Your task to perform on an android device: snooze an email in the gmail app Image 0: 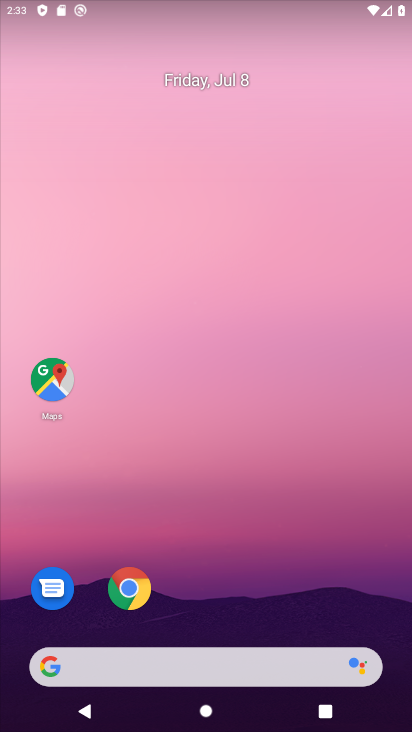
Step 0: drag from (189, 445) to (130, 37)
Your task to perform on an android device: snooze an email in the gmail app Image 1: 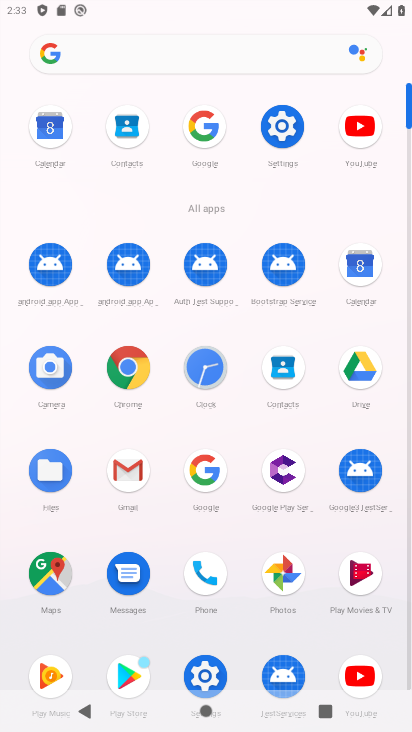
Step 1: click (131, 485)
Your task to perform on an android device: snooze an email in the gmail app Image 2: 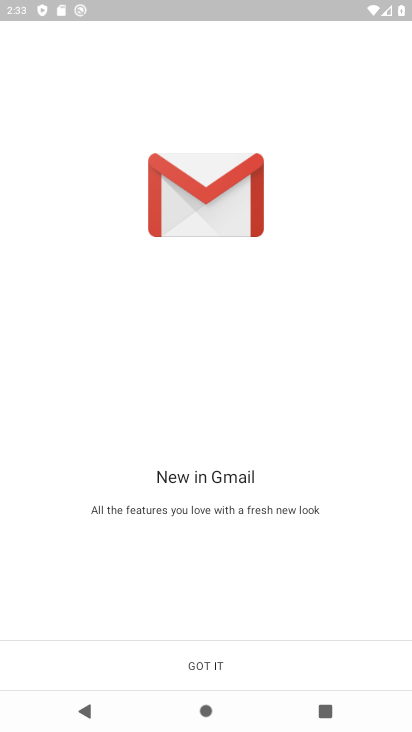
Step 2: click (207, 664)
Your task to perform on an android device: snooze an email in the gmail app Image 3: 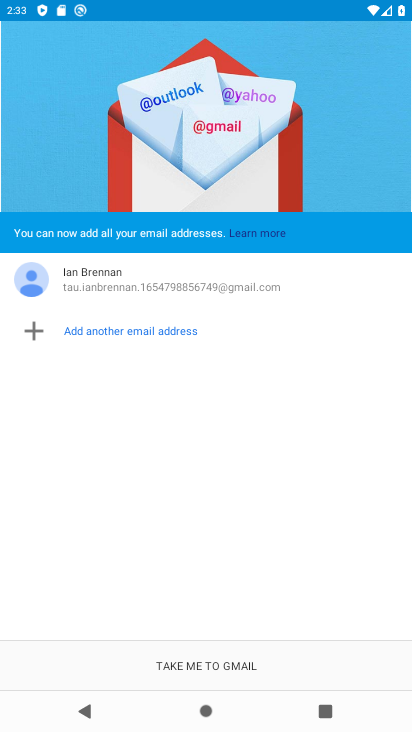
Step 3: click (207, 664)
Your task to perform on an android device: snooze an email in the gmail app Image 4: 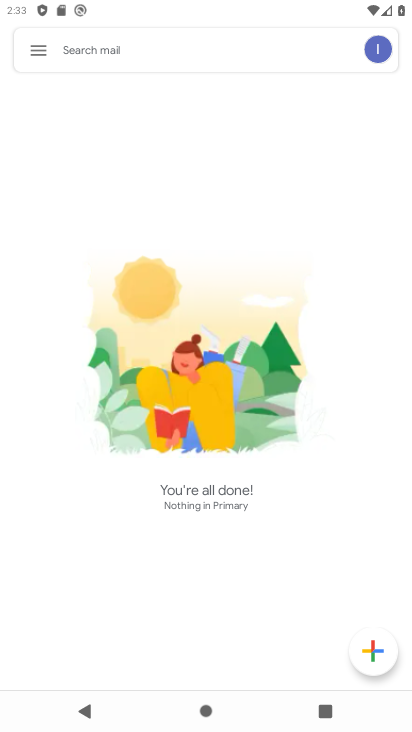
Step 4: task complete